Your task to perform on an android device: Check the weather Image 0: 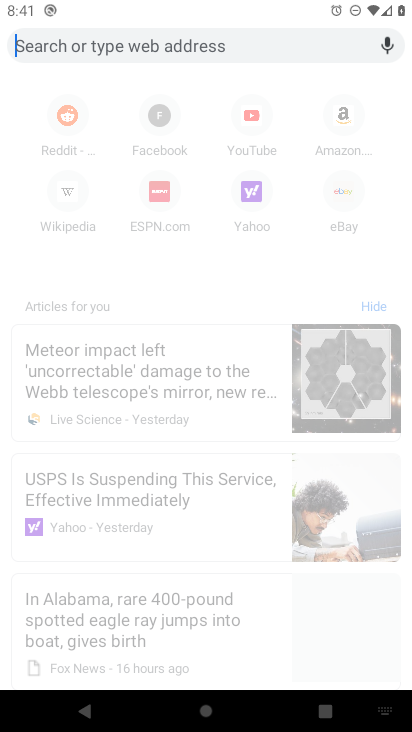
Step 0: type " weather"
Your task to perform on an android device: Check the weather Image 1: 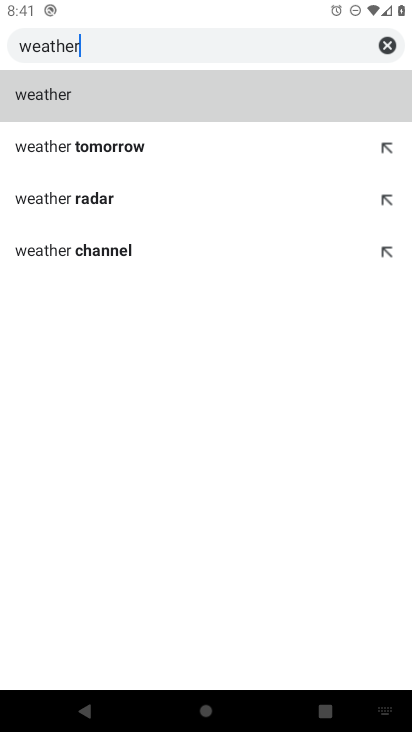
Step 1: type ""
Your task to perform on an android device: Check the weather Image 2: 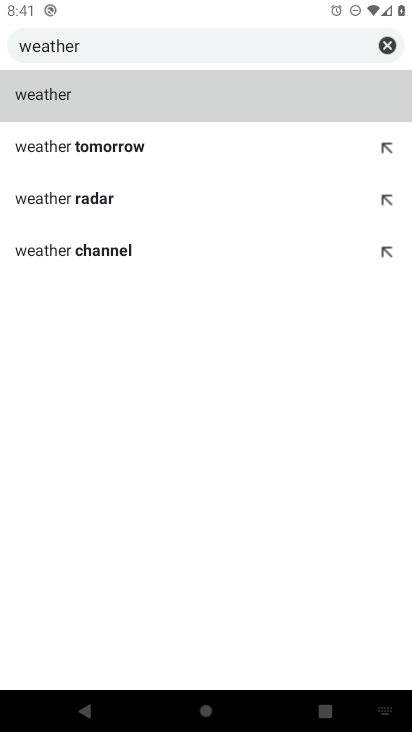
Step 2: click (59, 93)
Your task to perform on an android device: Check the weather Image 3: 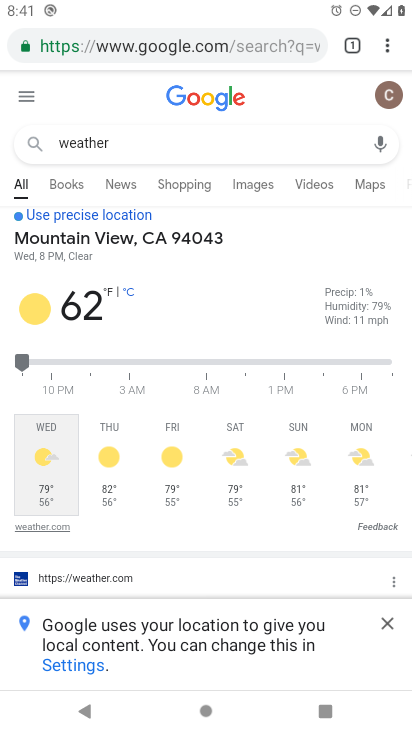
Step 3: task complete